Your task to perform on an android device: turn on improve location accuracy Image 0: 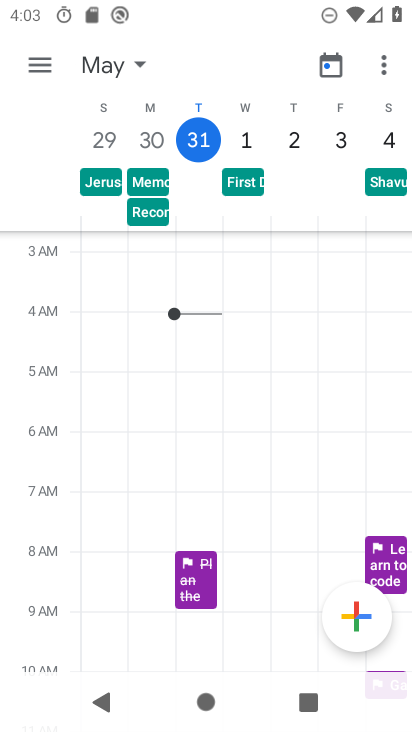
Step 0: press home button
Your task to perform on an android device: turn on improve location accuracy Image 1: 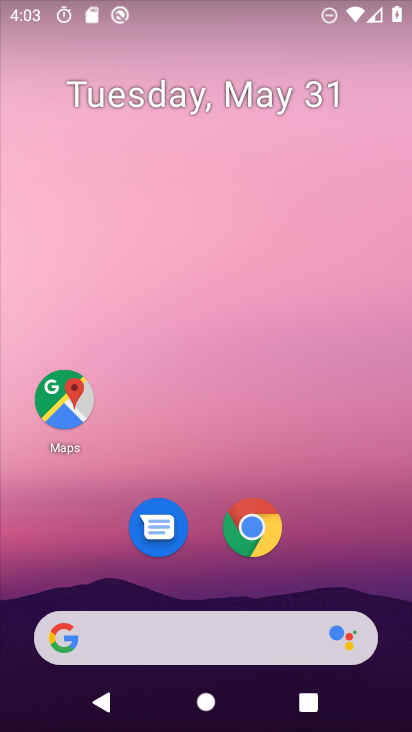
Step 1: drag from (220, 588) to (217, 3)
Your task to perform on an android device: turn on improve location accuracy Image 2: 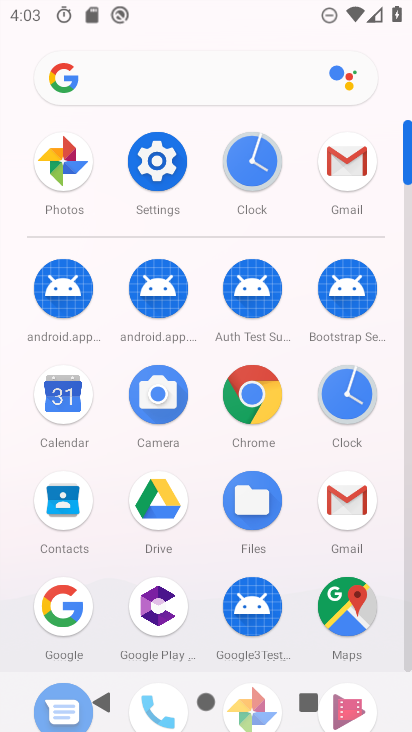
Step 2: click (167, 180)
Your task to perform on an android device: turn on improve location accuracy Image 3: 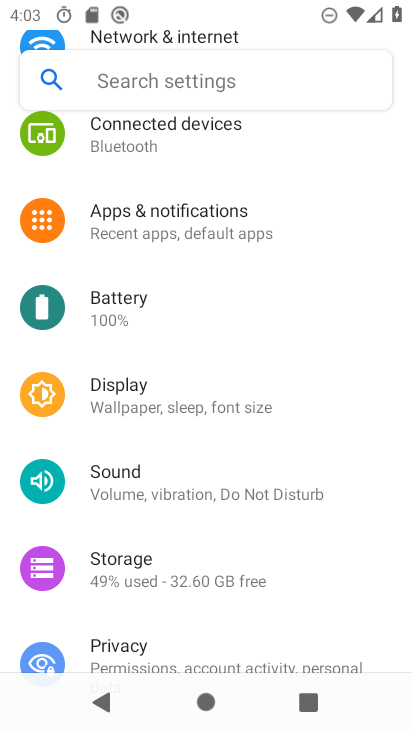
Step 3: drag from (142, 618) to (168, 143)
Your task to perform on an android device: turn on improve location accuracy Image 4: 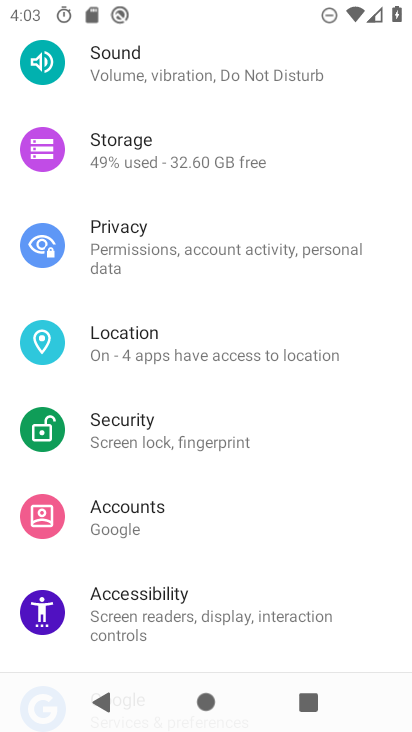
Step 4: click (147, 368)
Your task to perform on an android device: turn on improve location accuracy Image 5: 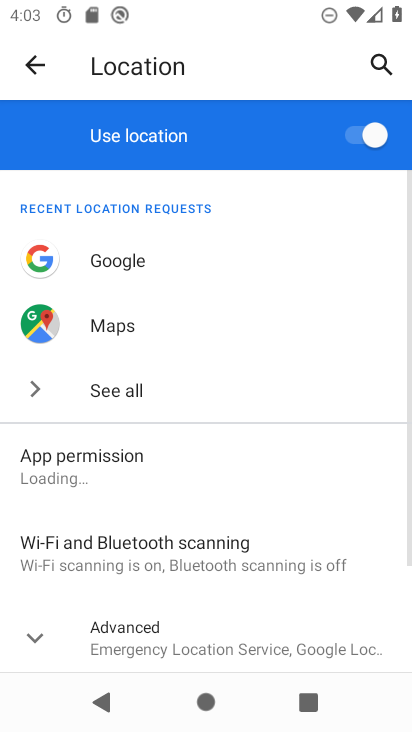
Step 5: click (170, 654)
Your task to perform on an android device: turn on improve location accuracy Image 6: 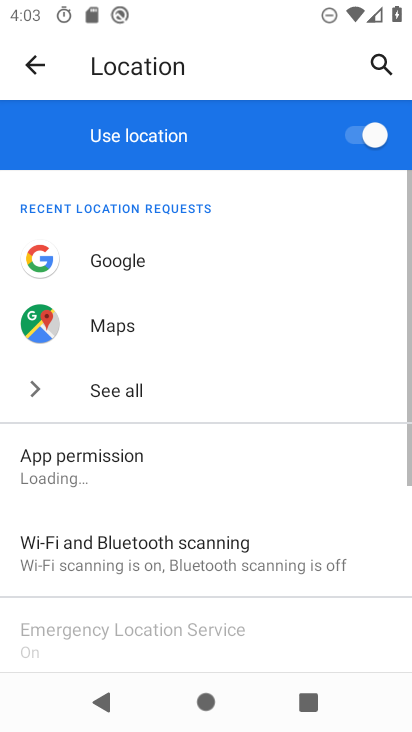
Step 6: drag from (170, 627) to (114, 175)
Your task to perform on an android device: turn on improve location accuracy Image 7: 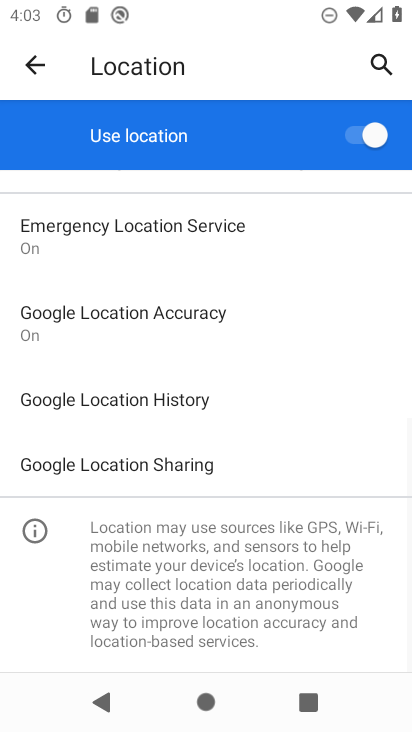
Step 7: click (121, 297)
Your task to perform on an android device: turn on improve location accuracy Image 8: 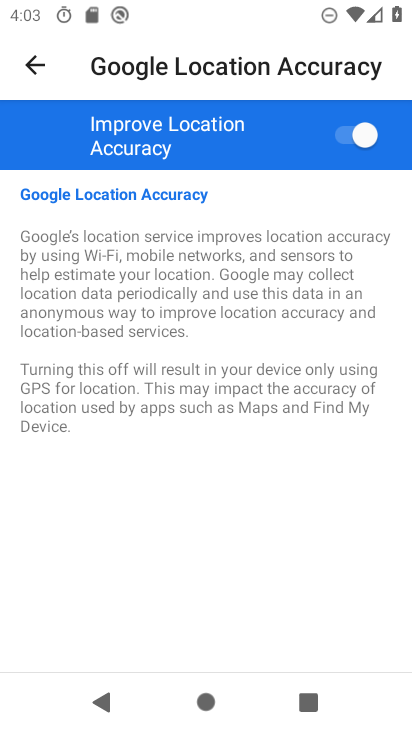
Step 8: task complete